Your task to perform on an android device: check android version Image 0: 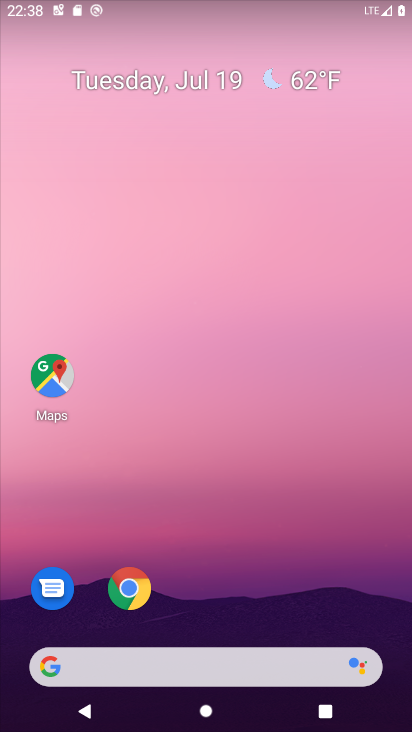
Step 0: drag from (190, 550) to (204, 157)
Your task to perform on an android device: check android version Image 1: 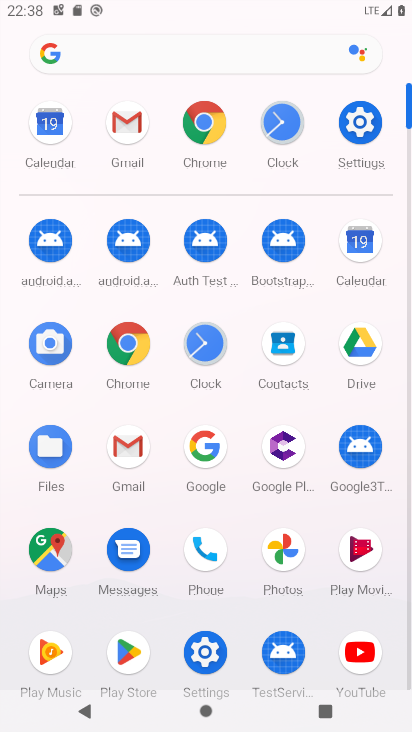
Step 1: click (363, 118)
Your task to perform on an android device: check android version Image 2: 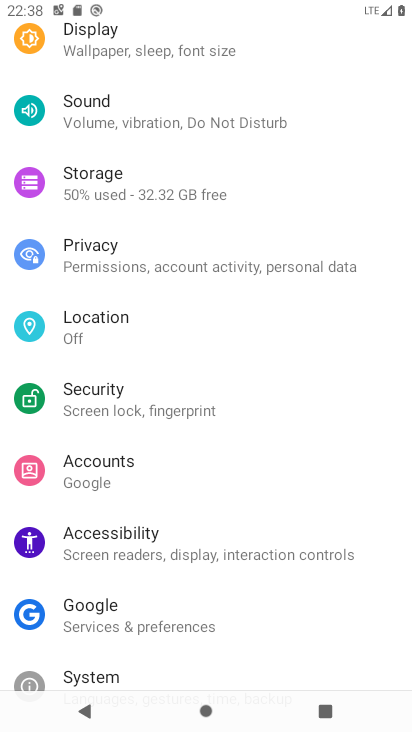
Step 2: drag from (137, 575) to (140, 316)
Your task to perform on an android device: check android version Image 3: 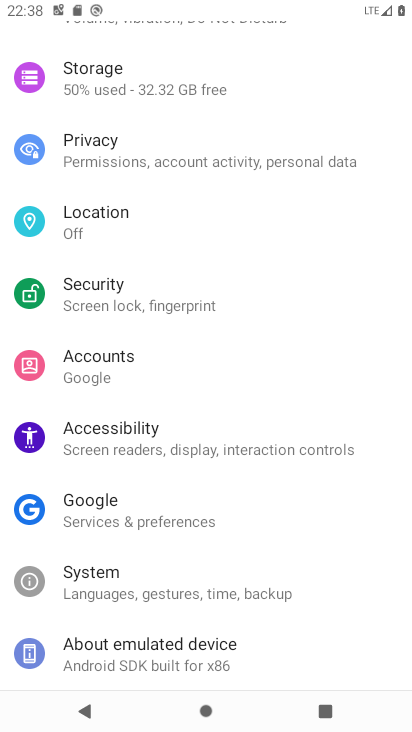
Step 3: click (103, 651)
Your task to perform on an android device: check android version Image 4: 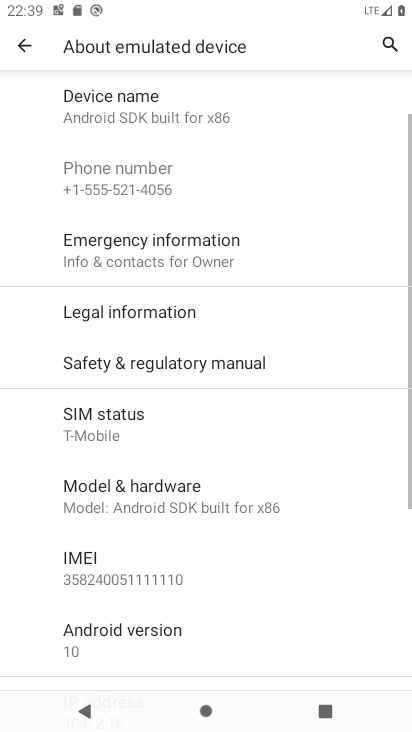
Step 4: task complete